Your task to perform on an android device: delete the emails in spam in the gmail app Image 0: 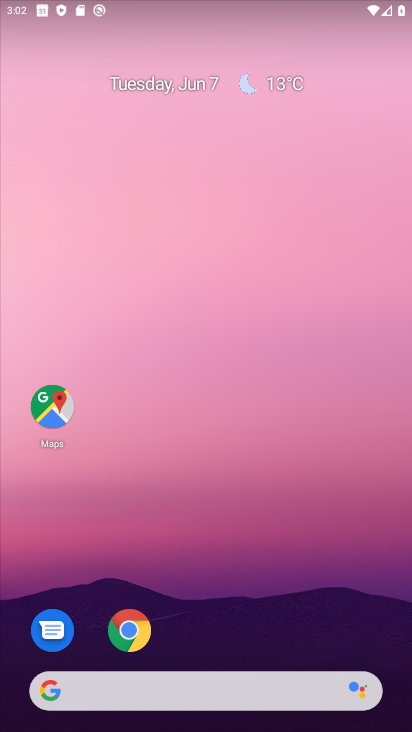
Step 0: drag from (211, 675) to (299, 128)
Your task to perform on an android device: delete the emails in spam in the gmail app Image 1: 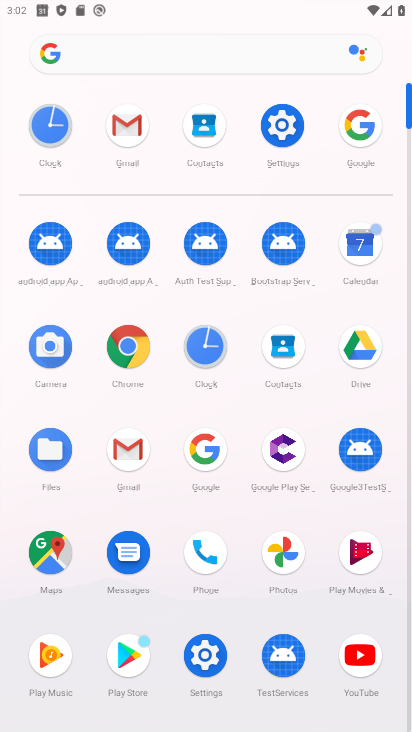
Step 1: click (144, 462)
Your task to perform on an android device: delete the emails in spam in the gmail app Image 2: 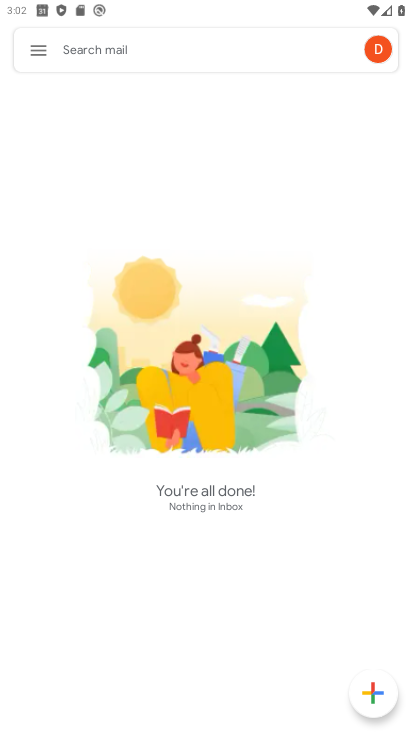
Step 2: click (33, 44)
Your task to perform on an android device: delete the emails in spam in the gmail app Image 3: 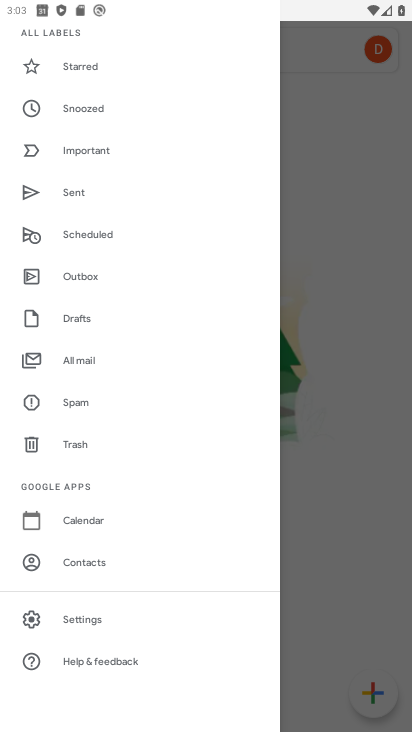
Step 3: click (71, 398)
Your task to perform on an android device: delete the emails in spam in the gmail app Image 4: 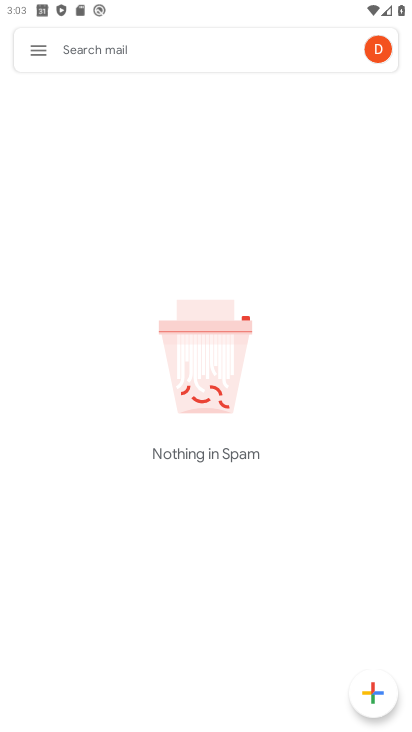
Step 4: task complete